Your task to perform on an android device: refresh tabs in the chrome app Image 0: 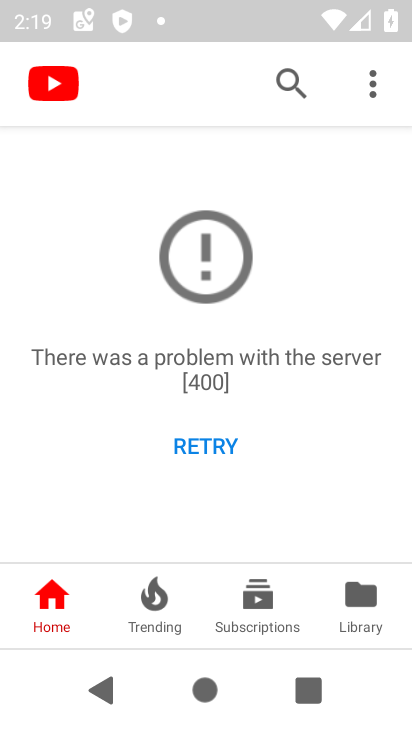
Step 0: press home button
Your task to perform on an android device: refresh tabs in the chrome app Image 1: 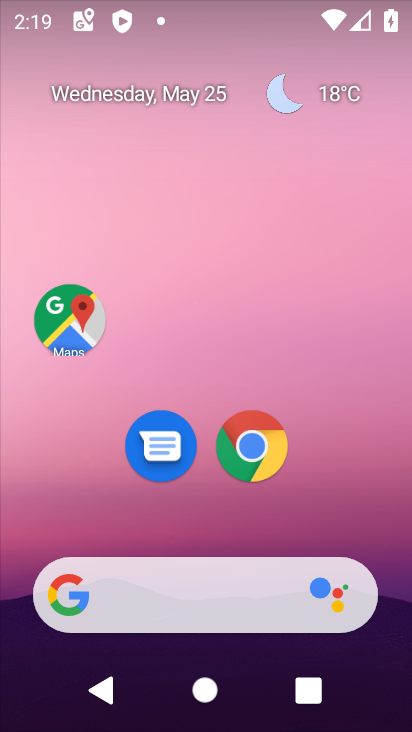
Step 1: click (265, 452)
Your task to perform on an android device: refresh tabs in the chrome app Image 2: 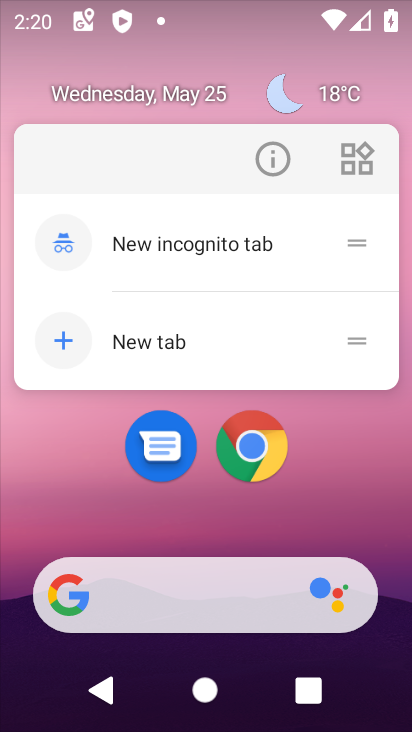
Step 2: click (246, 433)
Your task to perform on an android device: refresh tabs in the chrome app Image 3: 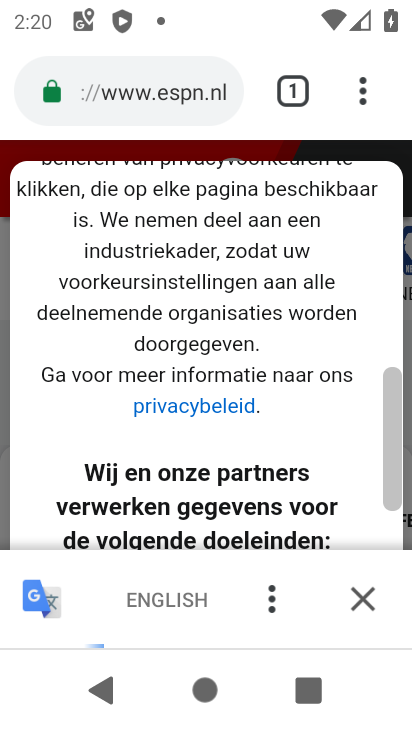
Step 3: task complete